Your task to perform on an android device: open chrome privacy settings Image 0: 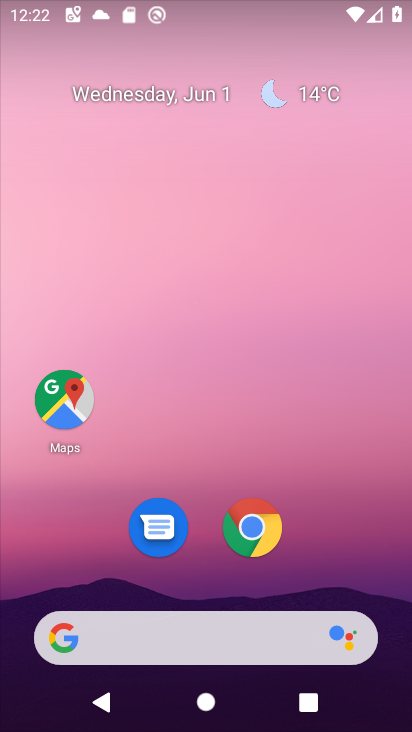
Step 0: click (256, 536)
Your task to perform on an android device: open chrome privacy settings Image 1: 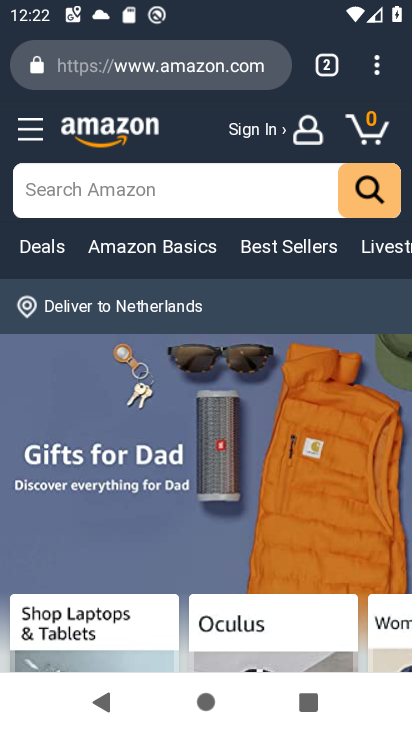
Step 1: drag from (376, 67) to (139, 583)
Your task to perform on an android device: open chrome privacy settings Image 2: 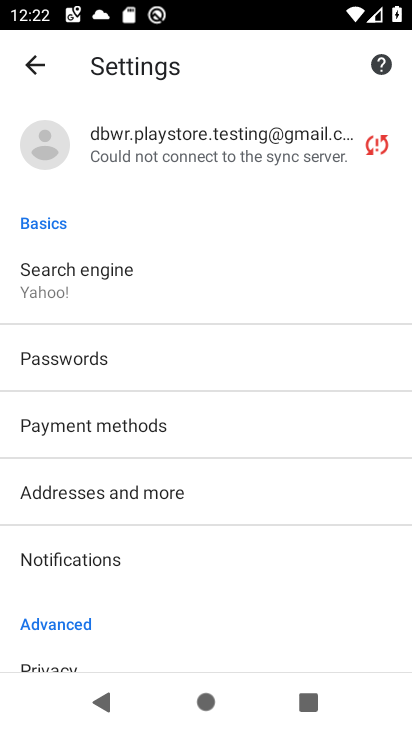
Step 2: drag from (122, 579) to (114, 403)
Your task to perform on an android device: open chrome privacy settings Image 3: 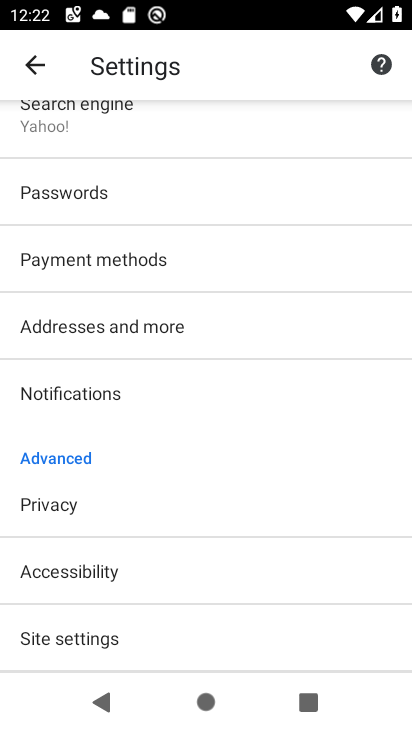
Step 3: click (39, 501)
Your task to perform on an android device: open chrome privacy settings Image 4: 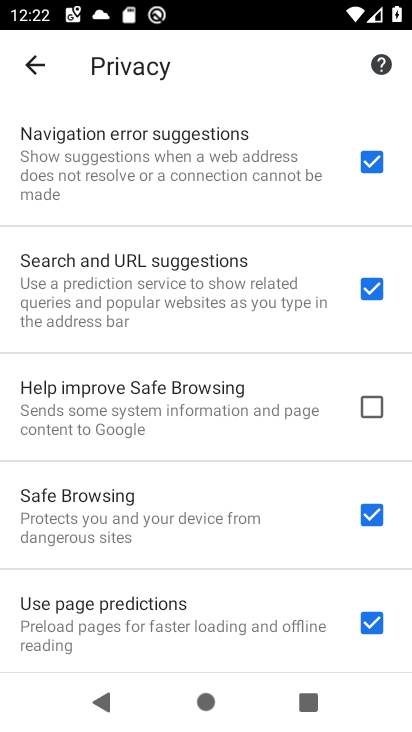
Step 4: task complete